Your task to perform on an android device: check out phone information Image 0: 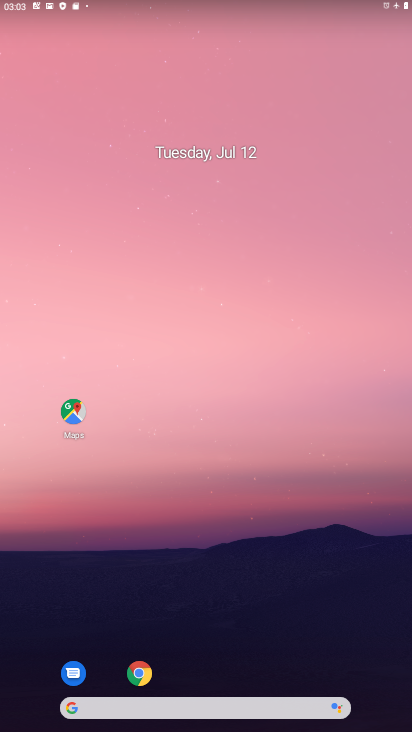
Step 0: press home button
Your task to perform on an android device: check out phone information Image 1: 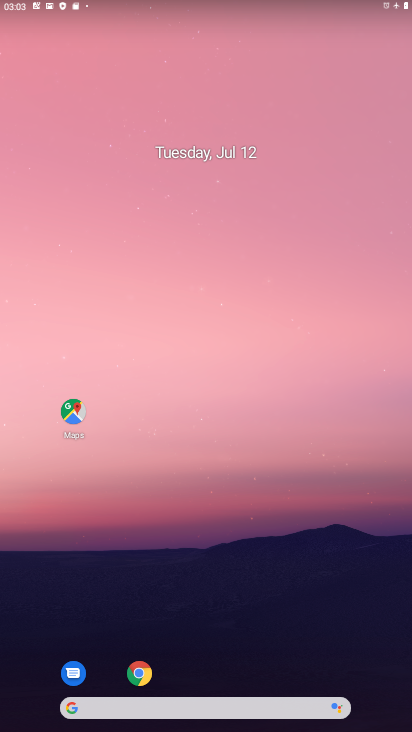
Step 1: drag from (209, 571) to (217, 41)
Your task to perform on an android device: check out phone information Image 2: 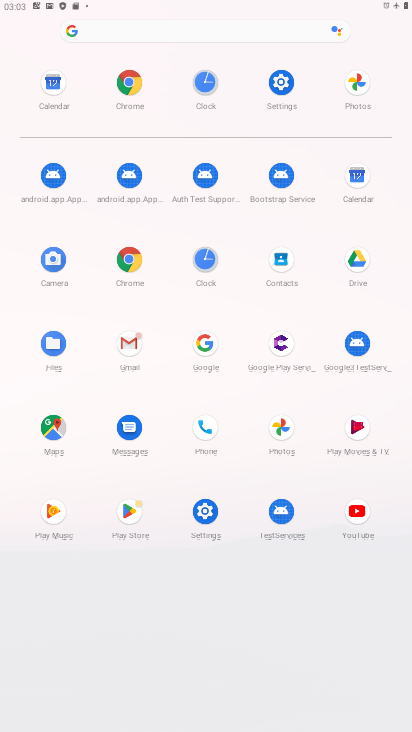
Step 2: click (278, 89)
Your task to perform on an android device: check out phone information Image 3: 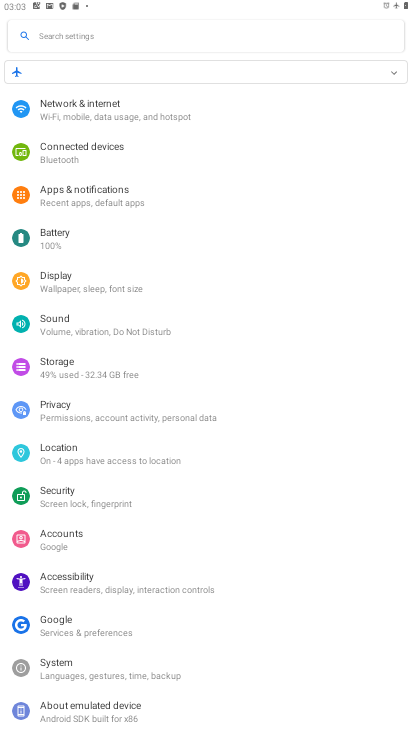
Step 3: drag from (248, 686) to (212, 216)
Your task to perform on an android device: check out phone information Image 4: 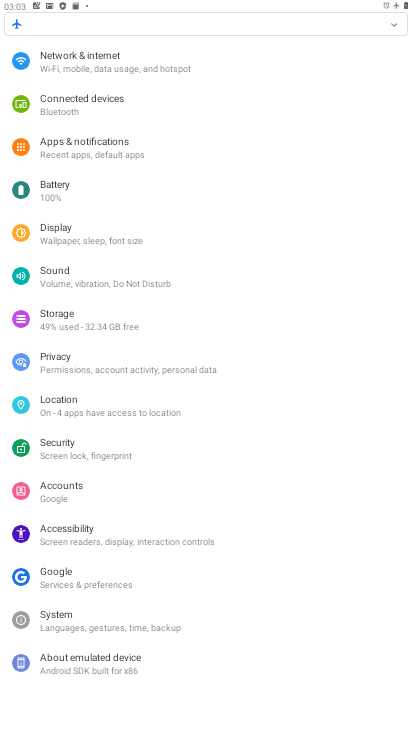
Step 4: click (137, 664)
Your task to perform on an android device: check out phone information Image 5: 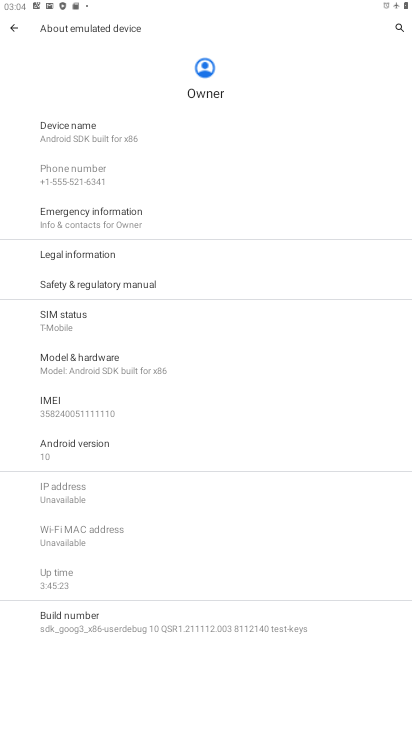
Step 5: click (90, 205)
Your task to perform on an android device: check out phone information Image 6: 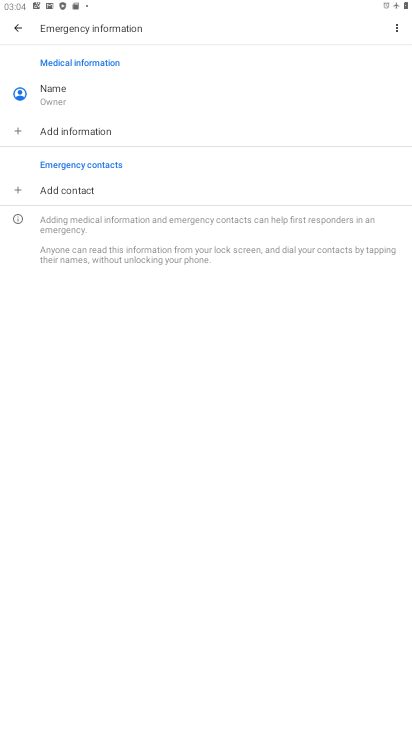
Step 6: task complete